Your task to perform on an android device: set the stopwatch Image 0: 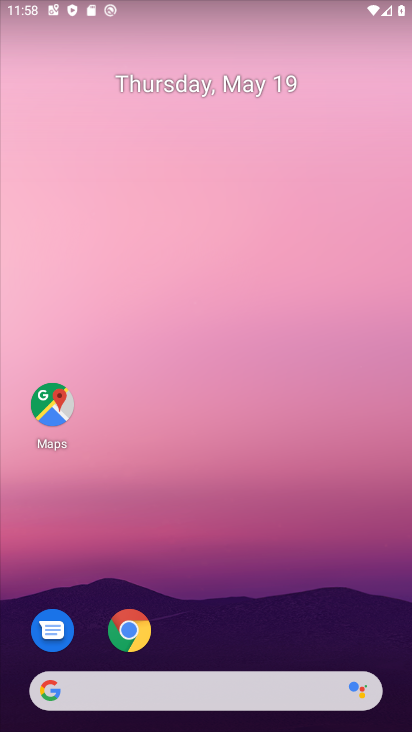
Step 0: drag from (233, 602) to (248, 117)
Your task to perform on an android device: set the stopwatch Image 1: 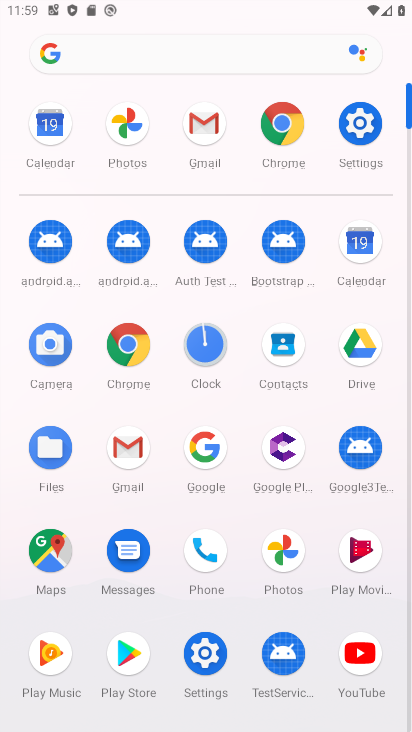
Step 1: click (205, 345)
Your task to perform on an android device: set the stopwatch Image 2: 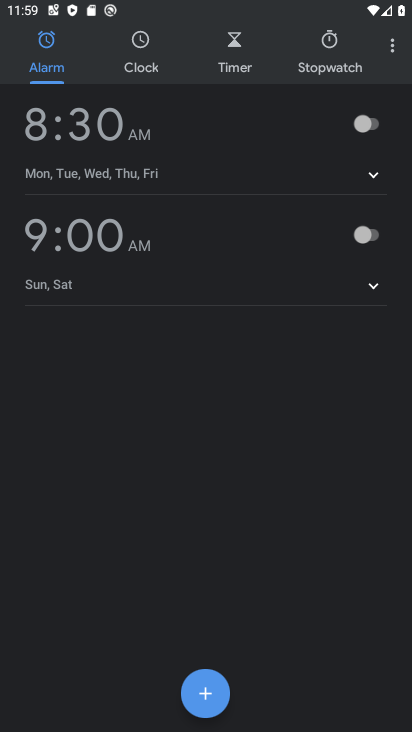
Step 2: click (327, 43)
Your task to perform on an android device: set the stopwatch Image 3: 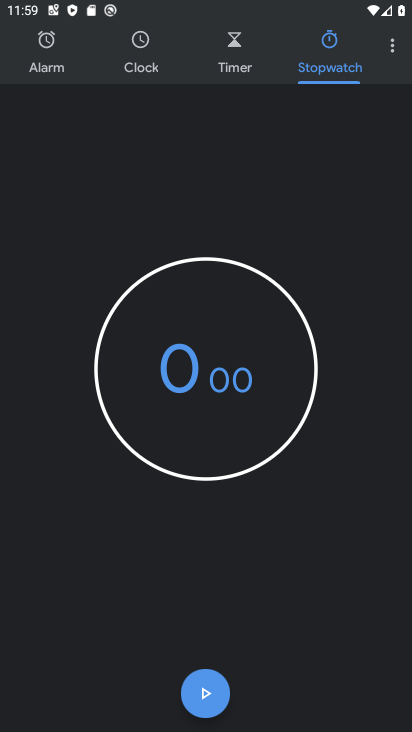
Step 3: click (210, 684)
Your task to perform on an android device: set the stopwatch Image 4: 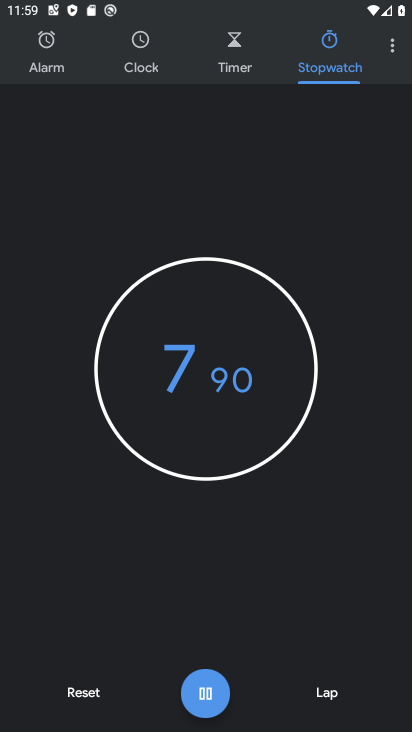
Step 4: click (210, 684)
Your task to perform on an android device: set the stopwatch Image 5: 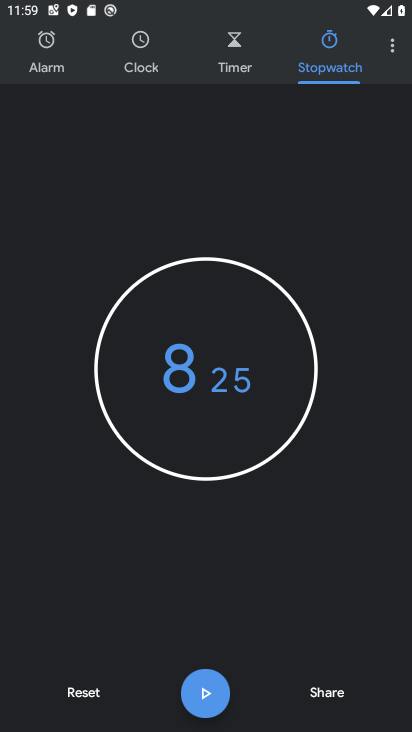
Step 5: task complete